Your task to perform on an android device: check out phone information Image 0: 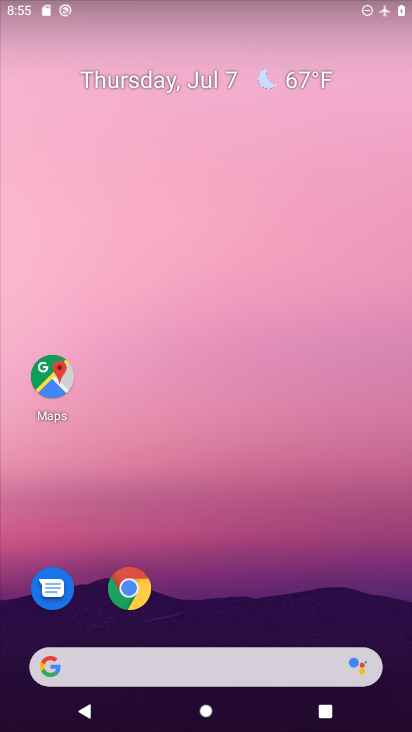
Step 0: drag from (247, 602) to (201, 119)
Your task to perform on an android device: check out phone information Image 1: 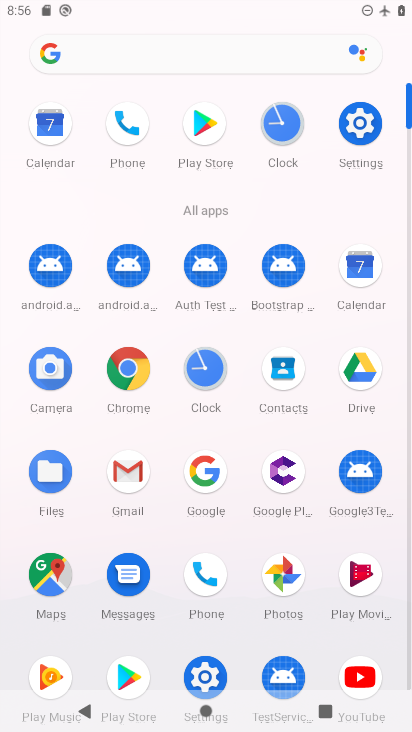
Step 1: click (363, 122)
Your task to perform on an android device: check out phone information Image 2: 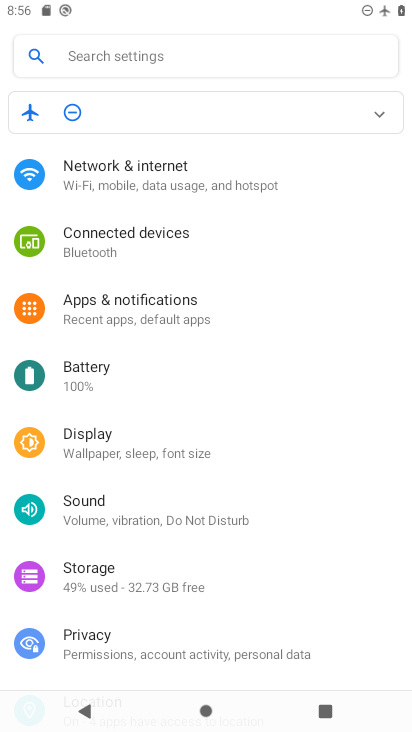
Step 2: drag from (157, 488) to (189, 393)
Your task to perform on an android device: check out phone information Image 3: 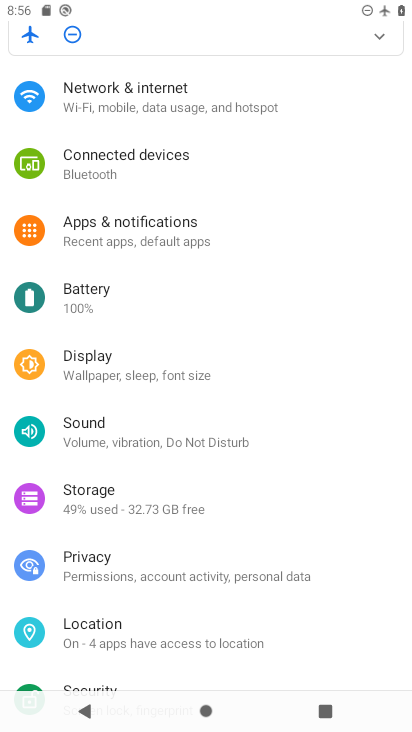
Step 3: drag from (104, 540) to (186, 425)
Your task to perform on an android device: check out phone information Image 4: 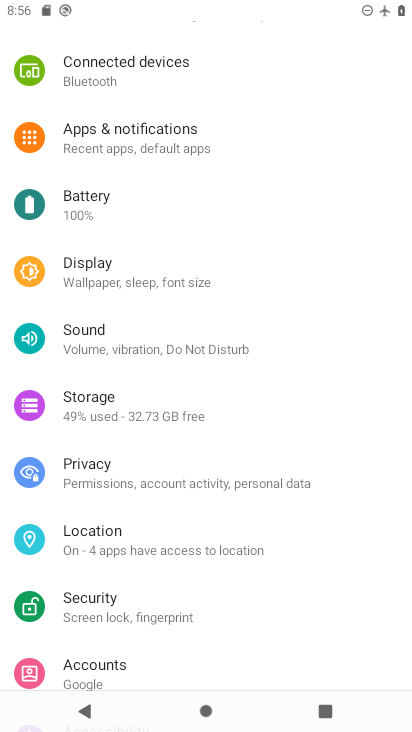
Step 4: drag from (129, 513) to (211, 401)
Your task to perform on an android device: check out phone information Image 5: 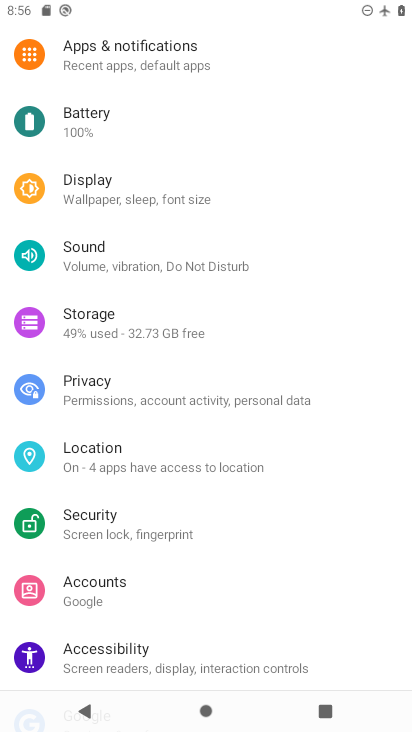
Step 5: drag from (87, 560) to (193, 443)
Your task to perform on an android device: check out phone information Image 6: 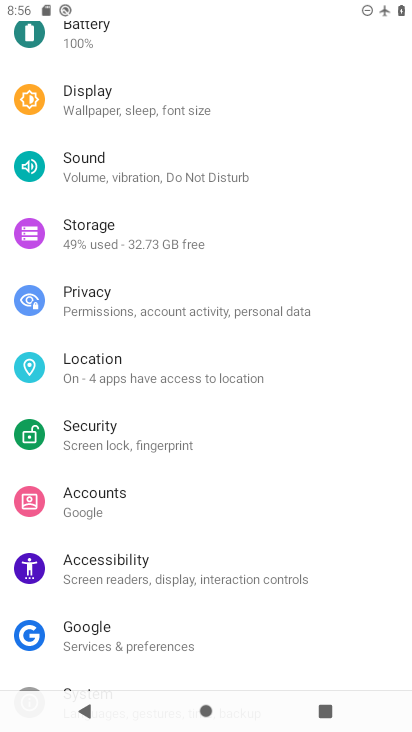
Step 6: drag from (108, 532) to (231, 390)
Your task to perform on an android device: check out phone information Image 7: 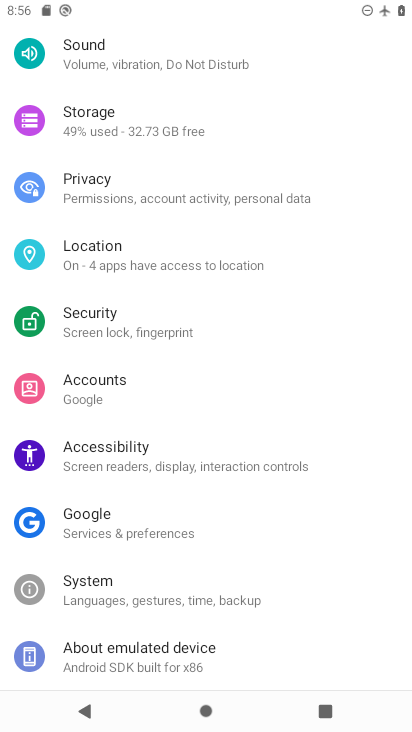
Step 7: drag from (153, 538) to (199, 450)
Your task to perform on an android device: check out phone information Image 8: 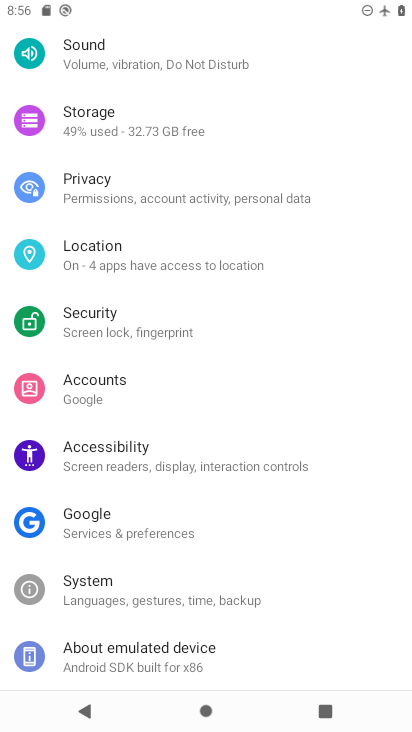
Step 8: click (154, 645)
Your task to perform on an android device: check out phone information Image 9: 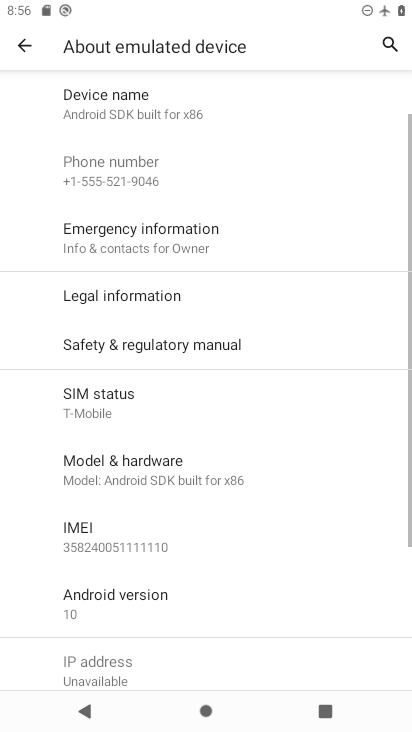
Step 9: task complete